Your task to perform on an android device: Open eBay Image 0: 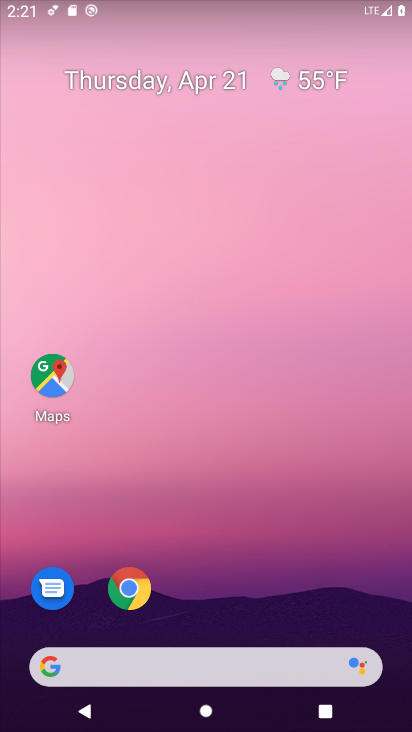
Step 0: click (121, 593)
Your task to perform on an android device: Open eBay Image 1: 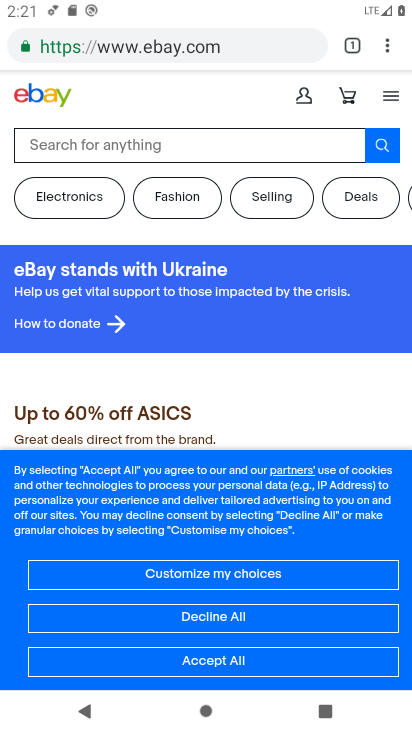
Step 1: task complete